Your task to perform on an android device: Open Yahoo.com Image 0: 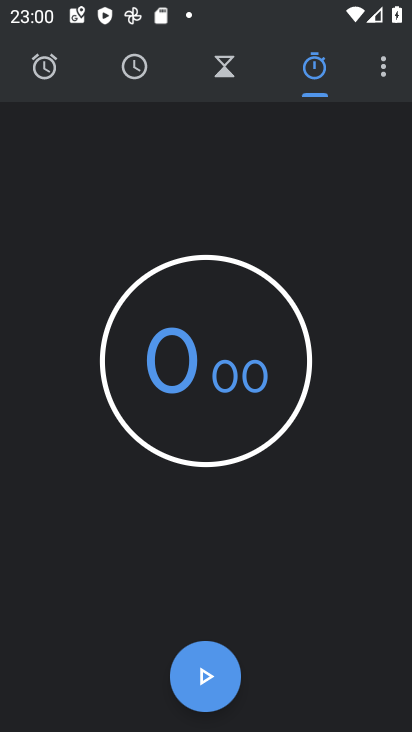
Step 0: drag from (283, 693) to (312, 132)
Your task to perform on an android device: Open Yahoo.com Image 1: 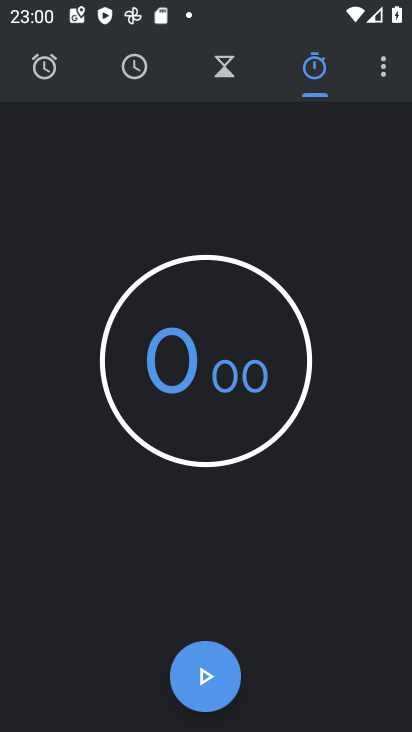
Step 1: type ""
Your task to perform on an android device: Open Yahoo.com Image 2: 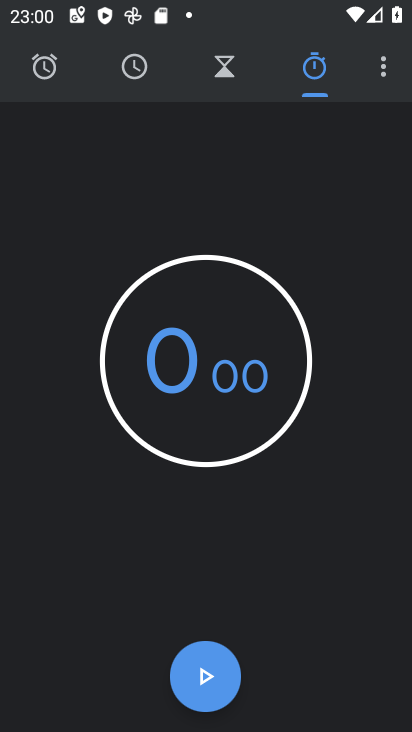
Step 2: press home button
Your task to perform on an android device: Open Yahoo.com Image 3: 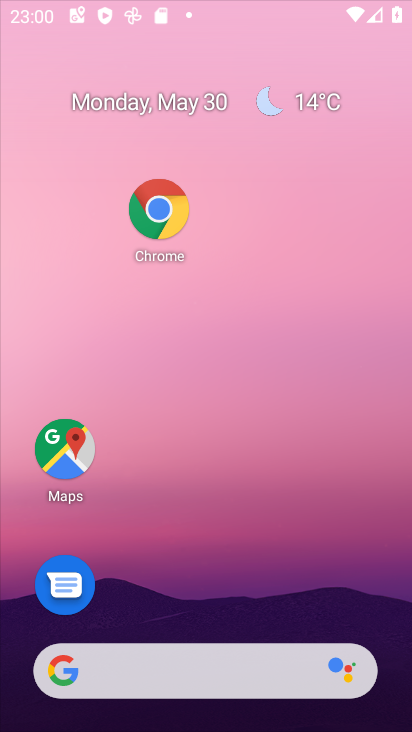
Step 3: drag from (291, 570) to (363, 62)
Your task to perform on an android device: Open Yahoo.com Image 4: 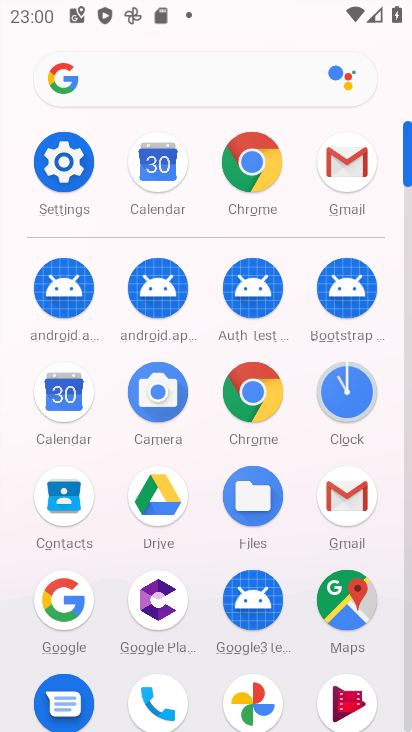
Step 4: click (139, 95)
Your task to perform on an android device: Open Yahoo.com Image 5: 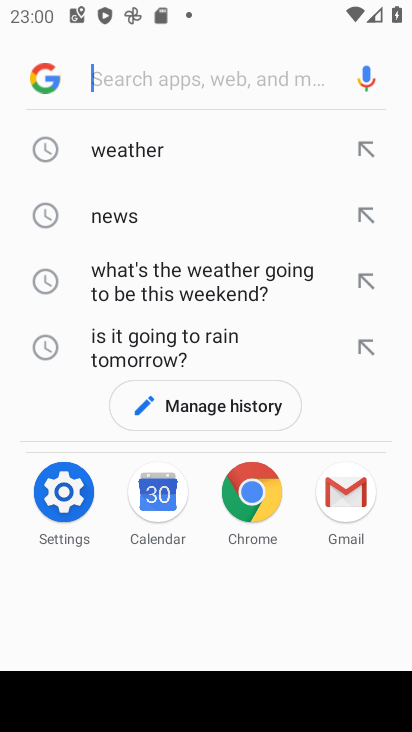
Step 5: click (152, 71)
Your task to perform on an android device: Open Yahoo.com Image 6: 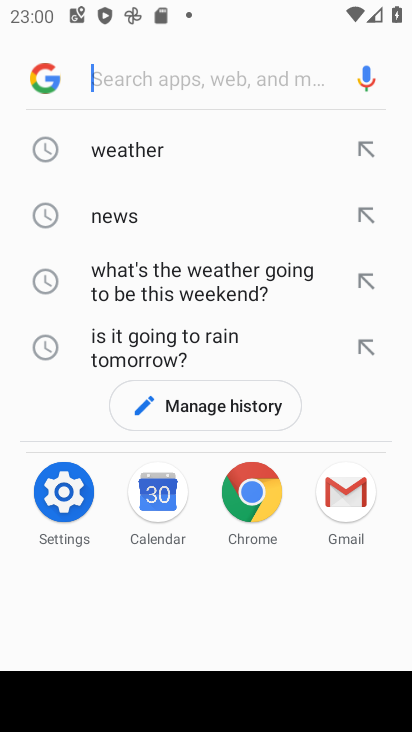
Step 6: type "Yahoo.com"
Your task to perform on an android device: Open Yahoo.com Image 7: 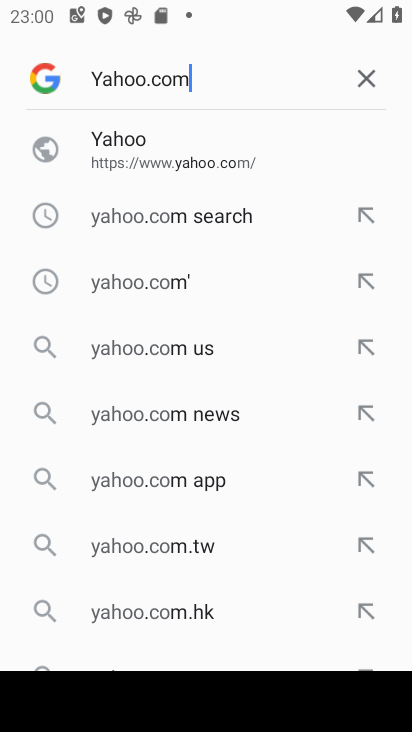
Step 7: type ""
Your task to perform on an android device: Open Yahoo.com Image 8: 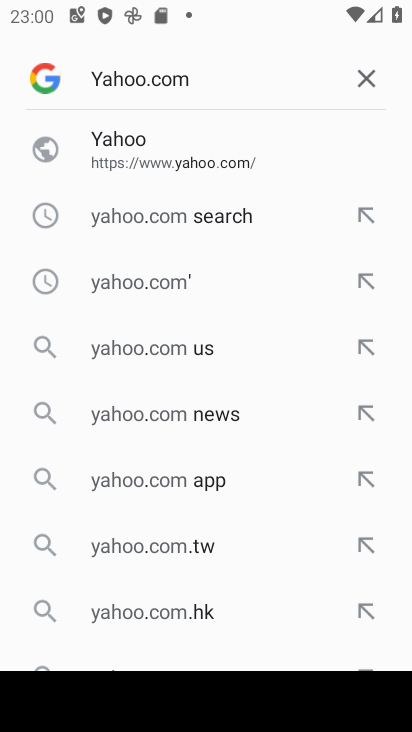
Step 8: click (133, 138)
Your task to perform on an android device: Open Yahoo.com Image 9: 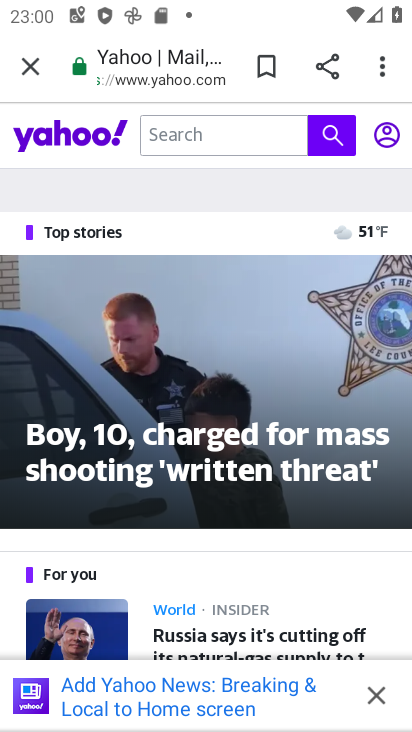
Step 9: task complete